Your task to perform on an android device: Open eBay Image 0: 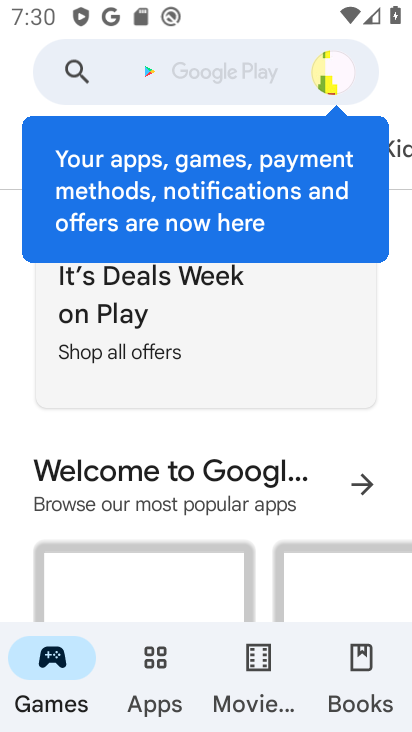
Step 0: press home button
Your task to perform on an android device: Open eBay Image 1: 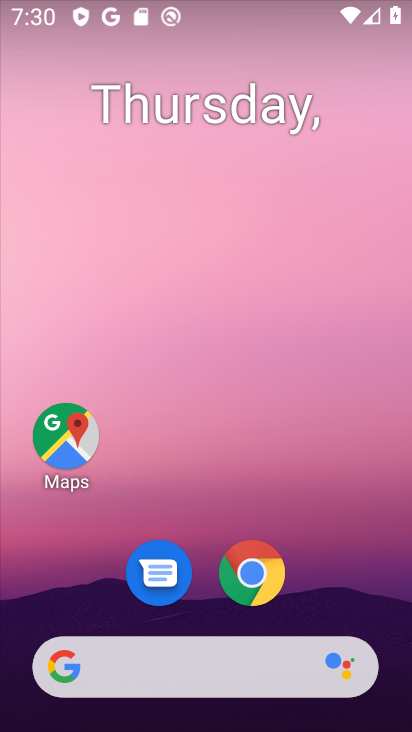
Step 1: drag from (356, 577) to (346, 211)
Your task to perform on an android device: Open eBay Image 2: 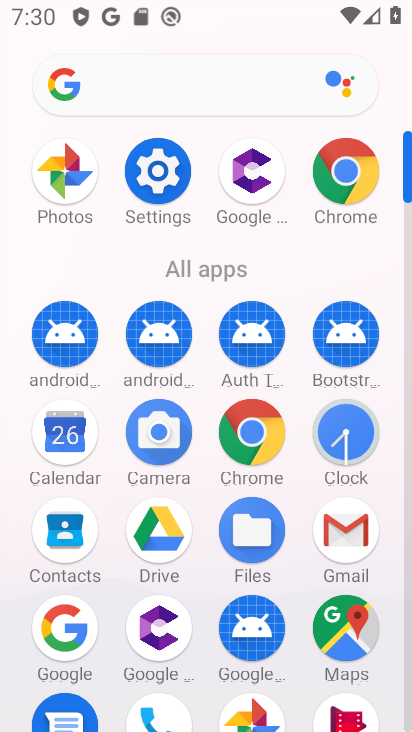
Step 2: click (250, 424)
Your task to perform on an android device: Open eBay Image 3: 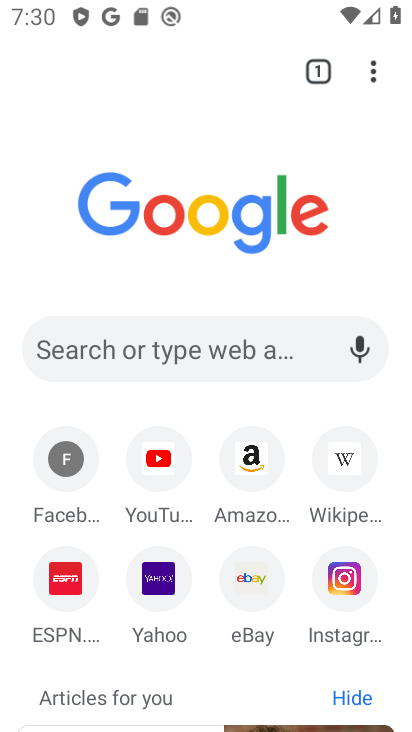
Step 3: click (203, 335)
Your task to perform on an android device: Open eBay Image 4: 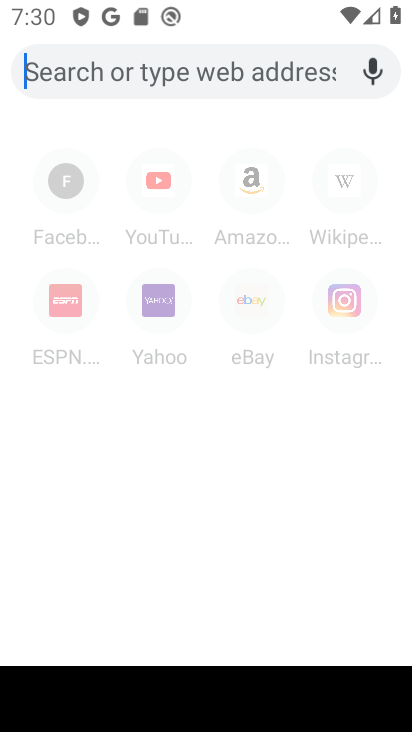
Step 4: type "ebay"
Your task to perform on an android device: Open eBay Image 5: 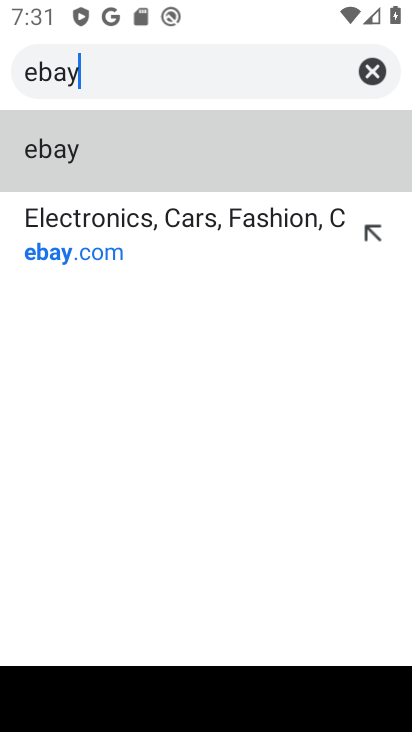
Step 5: click (58, 234)
Your task to perform on an android device: Open eBay Image 6: 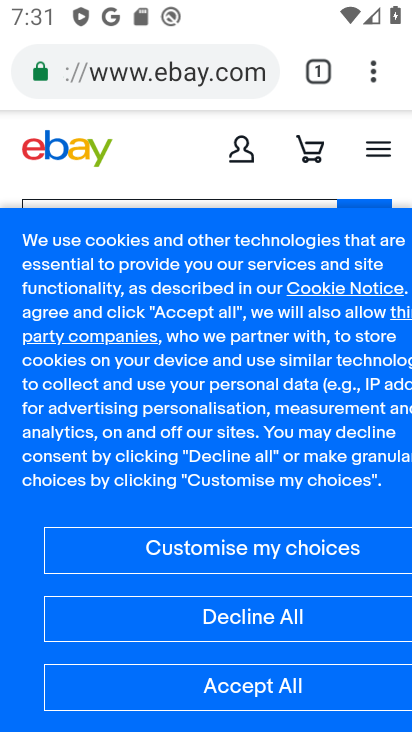
Step 6: task complete